Your task to perform on an android device: turn pop-ups on in chrome Image 0: 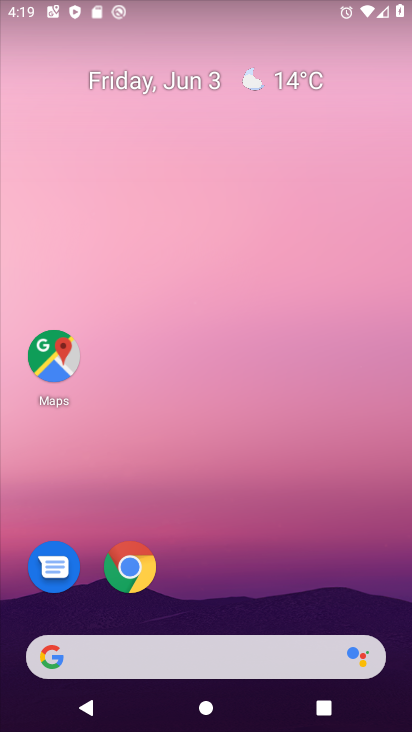
Step 0: drag from (269, 637) to (237, 256)
Your task to perform on an android device: turn pop-ups on in chrome Image 1: 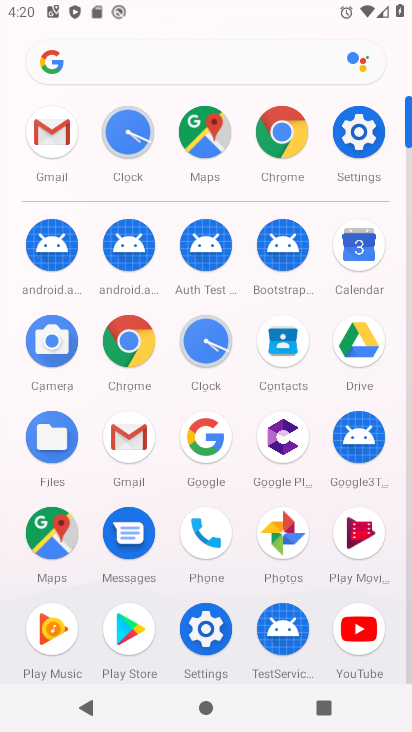
Step 1: click (267, 153)
Your task to perform on an android device: turn pop-ups on in chrome Image 2: 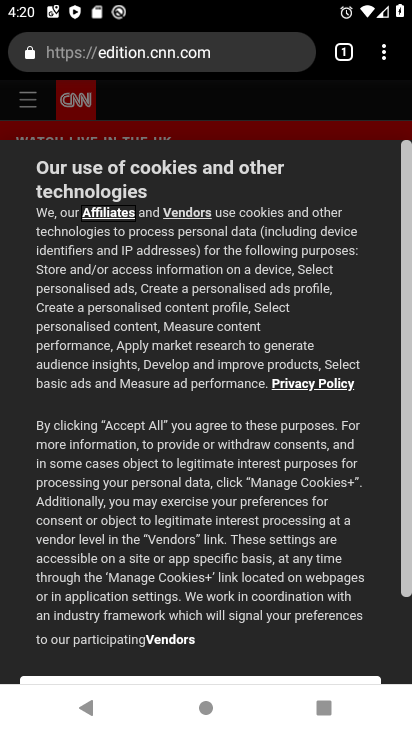
Step 2: click (376, 72)
Your task to perform on an android device: turn pop-ups on in chrome Image 3: 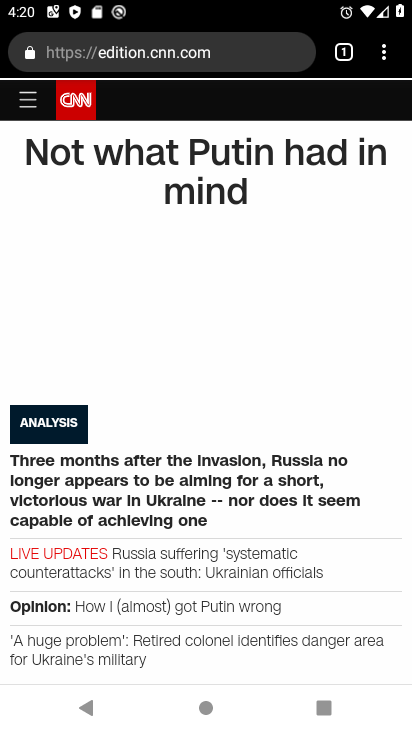
Step 3: click (381, 48)
Your task to perform on an android device: turn pop-ups on in chrome Image 4: 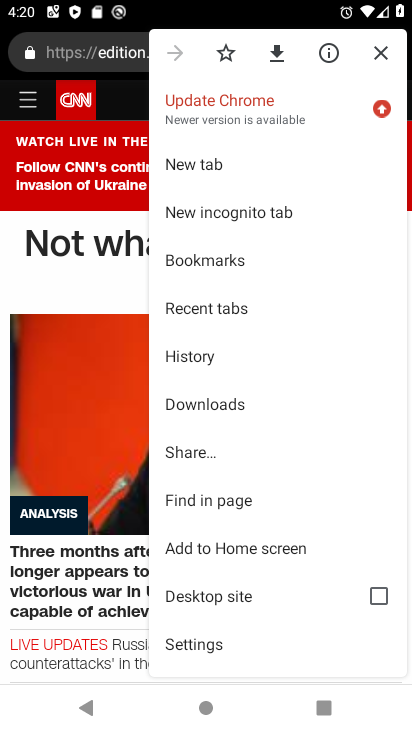
Step 4: click (186, 651)
Your task to perform on an android device: turn pop-ups on in chrome Image 5: 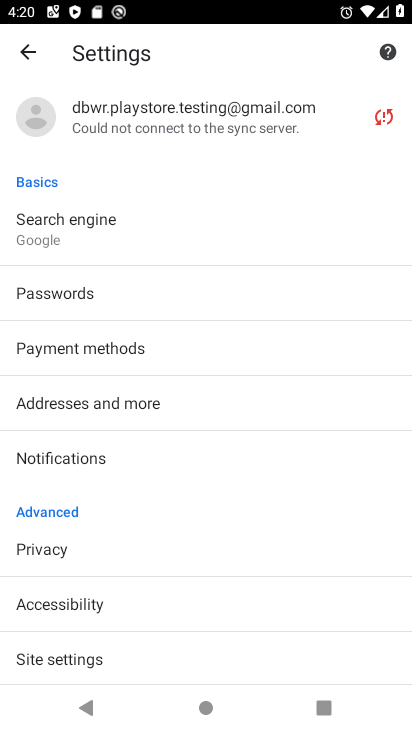
Step 5: click (80, 569)
Your task to perform on an android device: turn pop-ups on in chrome Image 6: 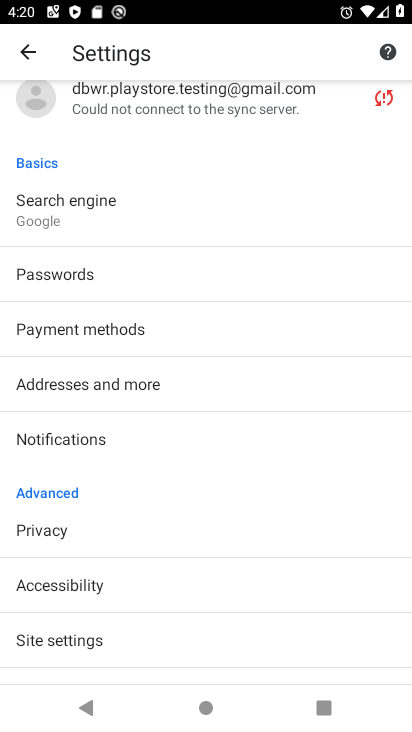
Step 6: click (67, 620)
Your task to perform on an android device: turn pop-ups on in chrome Image 7: 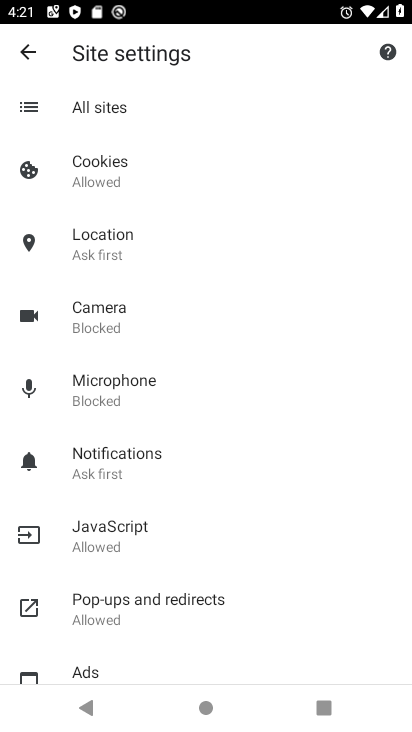
Step 7: click (117, 600)
Your task to perform on an android device: turn pop-ups on in chrome Image 8: 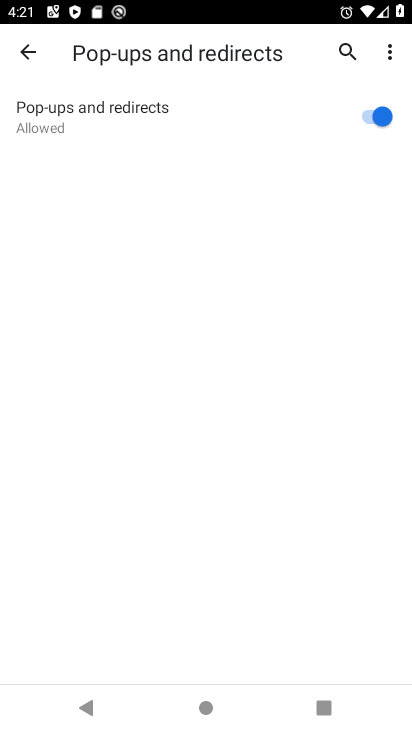
Step 8: task complete